Your task to perform on an android device: allow cookies in the chrome app Image 0: 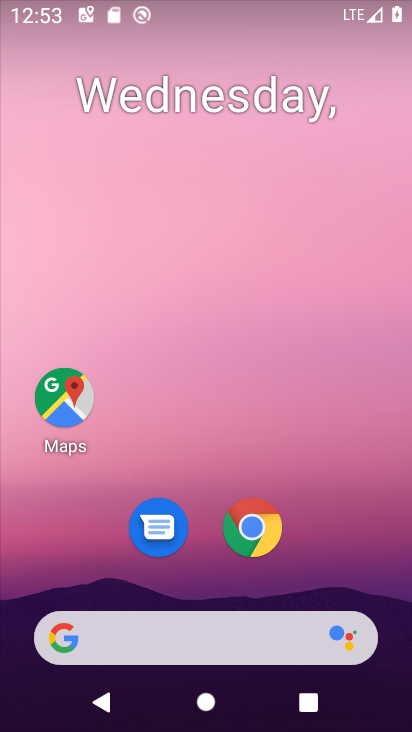
Step 0: drag from (201, 590) to (245, 80)
Your task to perform on an android device: allow cookies in the chrome app Image 1: 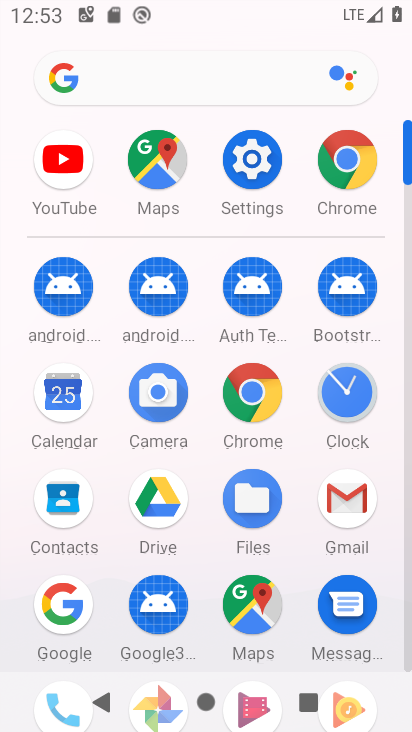
Step 1: click (250, 393)
Your task to perform on an android device: allow cookies in the chrome app Image 2: 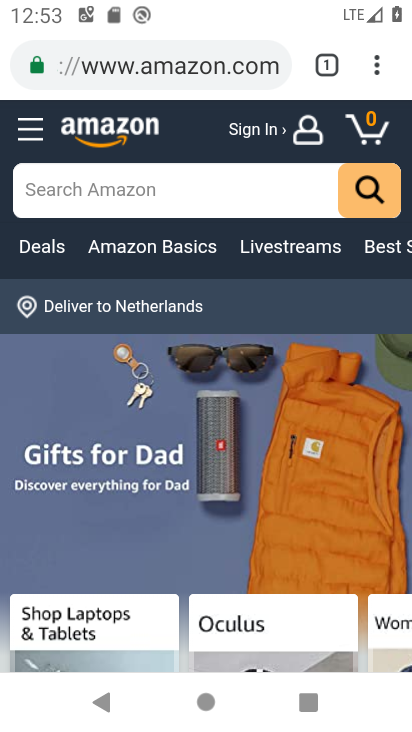
Step 2: drag from (379, 55) to (194, 584)
Your task to perform on an android device: allow cookies in the chrome app Image 3: 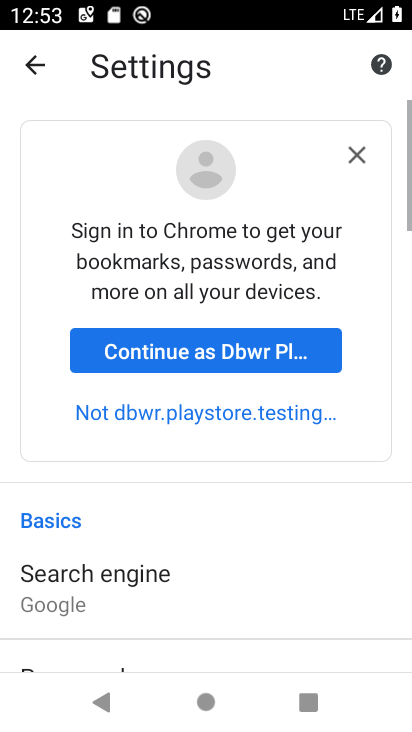
Step 3: drag from (194, 584) to (187, 98)
Your task to perform on an android device: allow cookies in the chrome app Image 4: 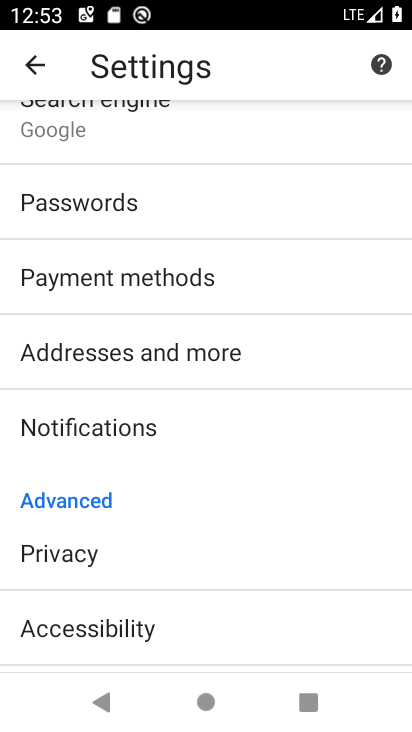
Step 4: drag from (139, 562) to (161, 262)
Your task to perform on an android device: allow cookies in the chrome app Image 5: 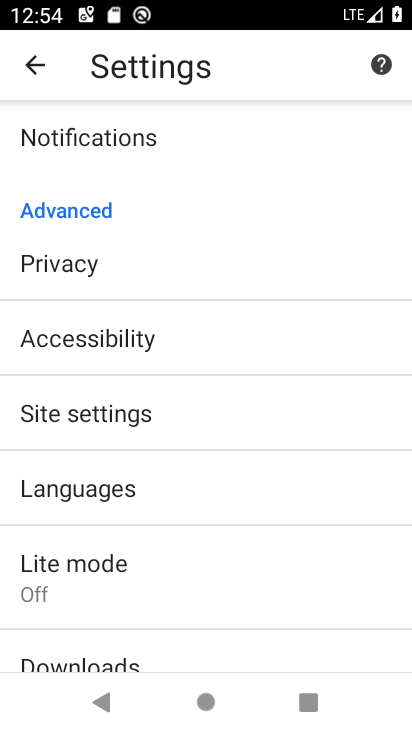
Step 5: drag from (84, 636) to (130, 183)
Your task to perform on an android device: allow cookies in the chrome app Image 6: 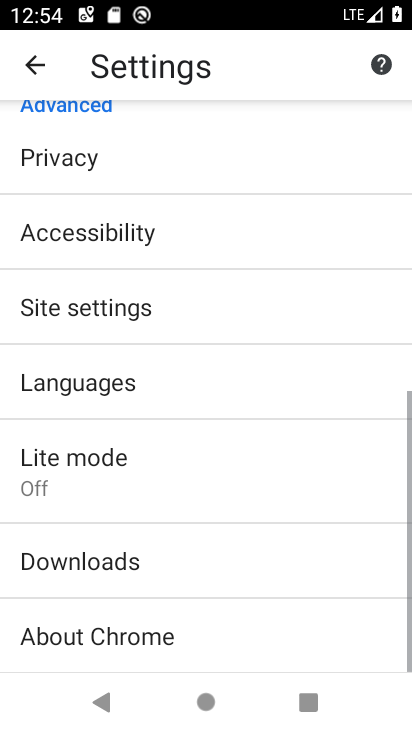
Step 6: click (137, 307)
Your task to perform on an android device: allow cookies in the chrome app Image 7: 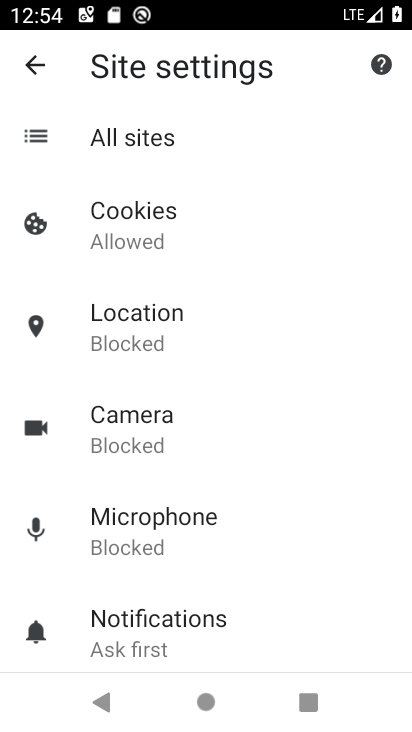
Step 7: click (164, 244)
Your task to perform on an android device: allow cookies in the chrome app Image 8: 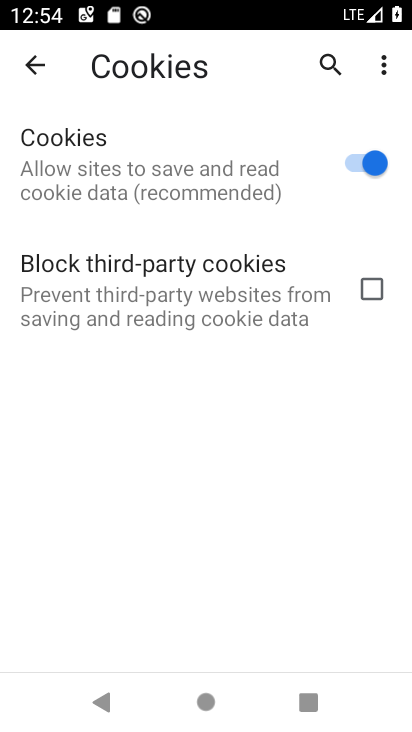
Step 8: task complete